Your task to perform on an android device: Add sony triple a to the cart on amazon, then select checkout. Image 0: 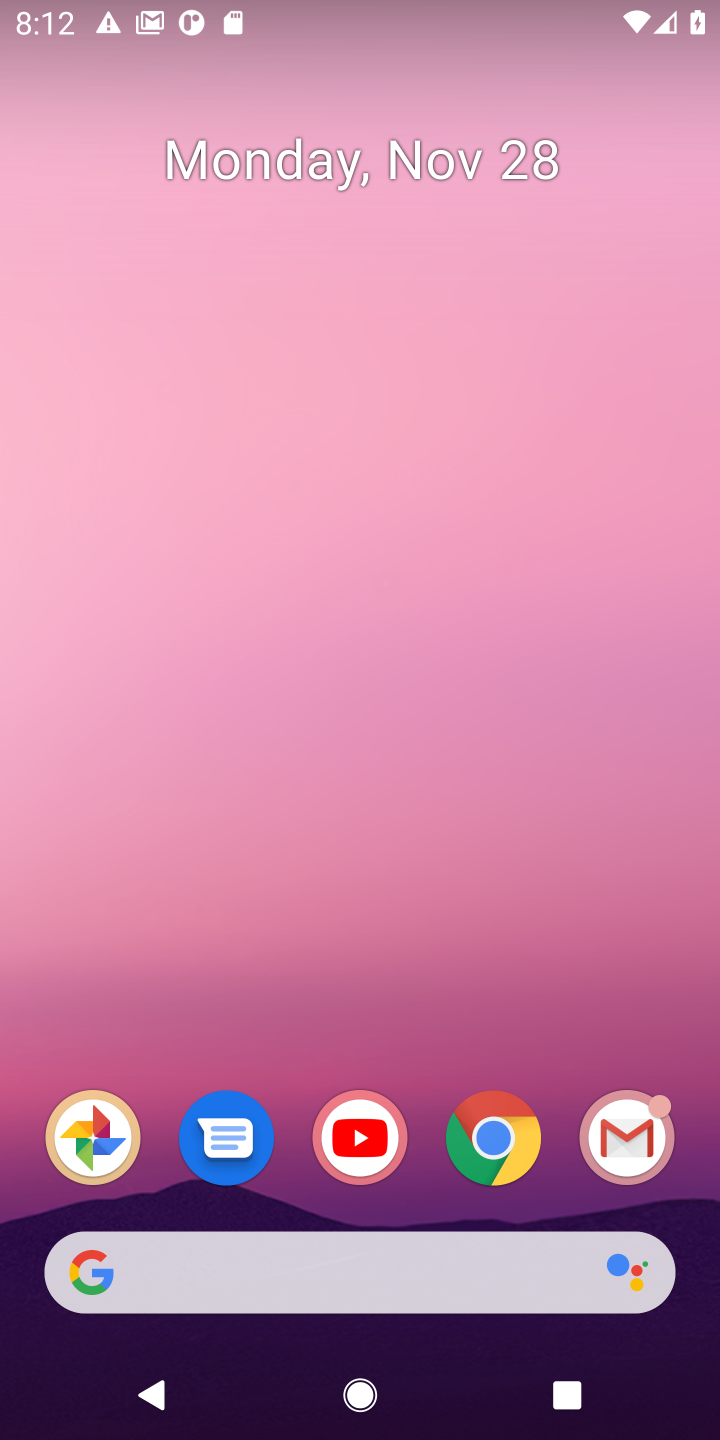
Step 0: click (487, 1142)
Your task to perform on an android device: Add sony triple a to the cart on amazon, then select checkout. Image 1: 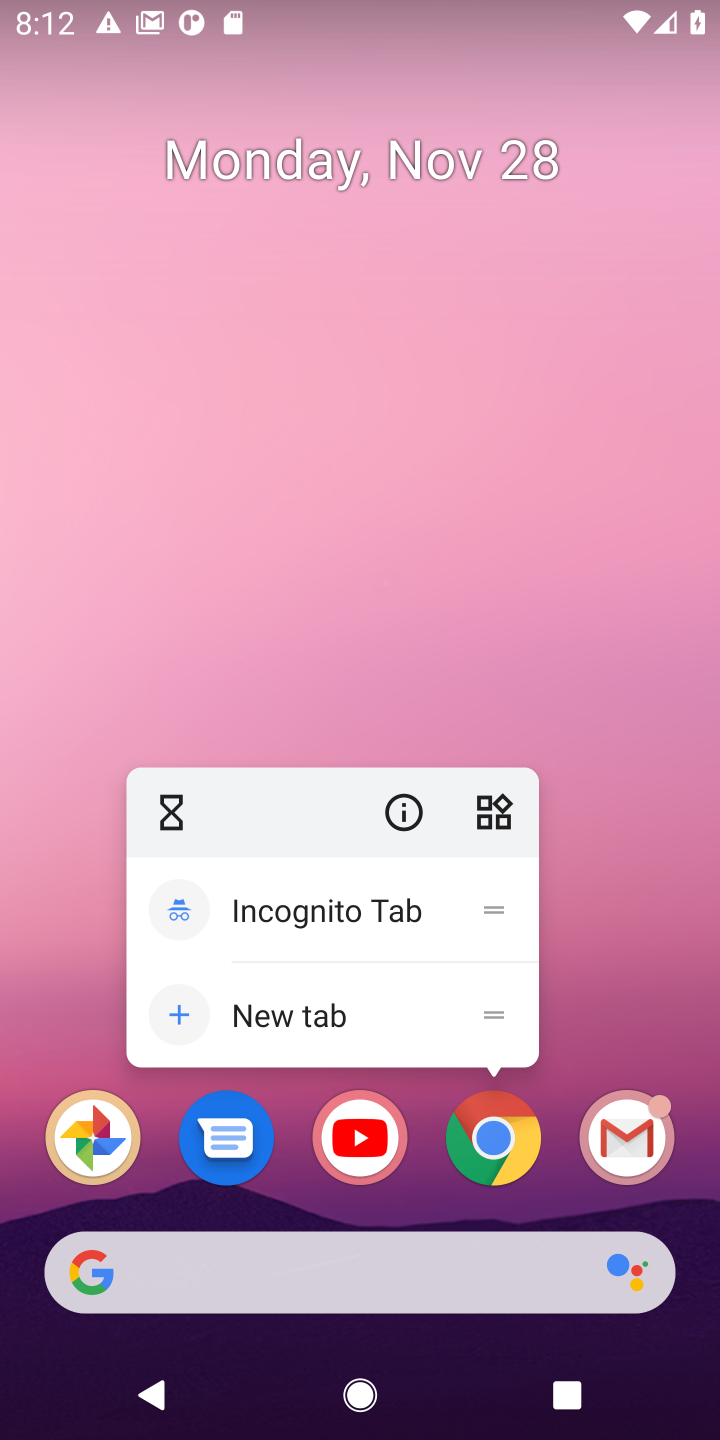
Step 1: click (494, 1138)
Your task to perform on an android device: Add sony triple a to the cart on amazon, then select checkout. Image 2: 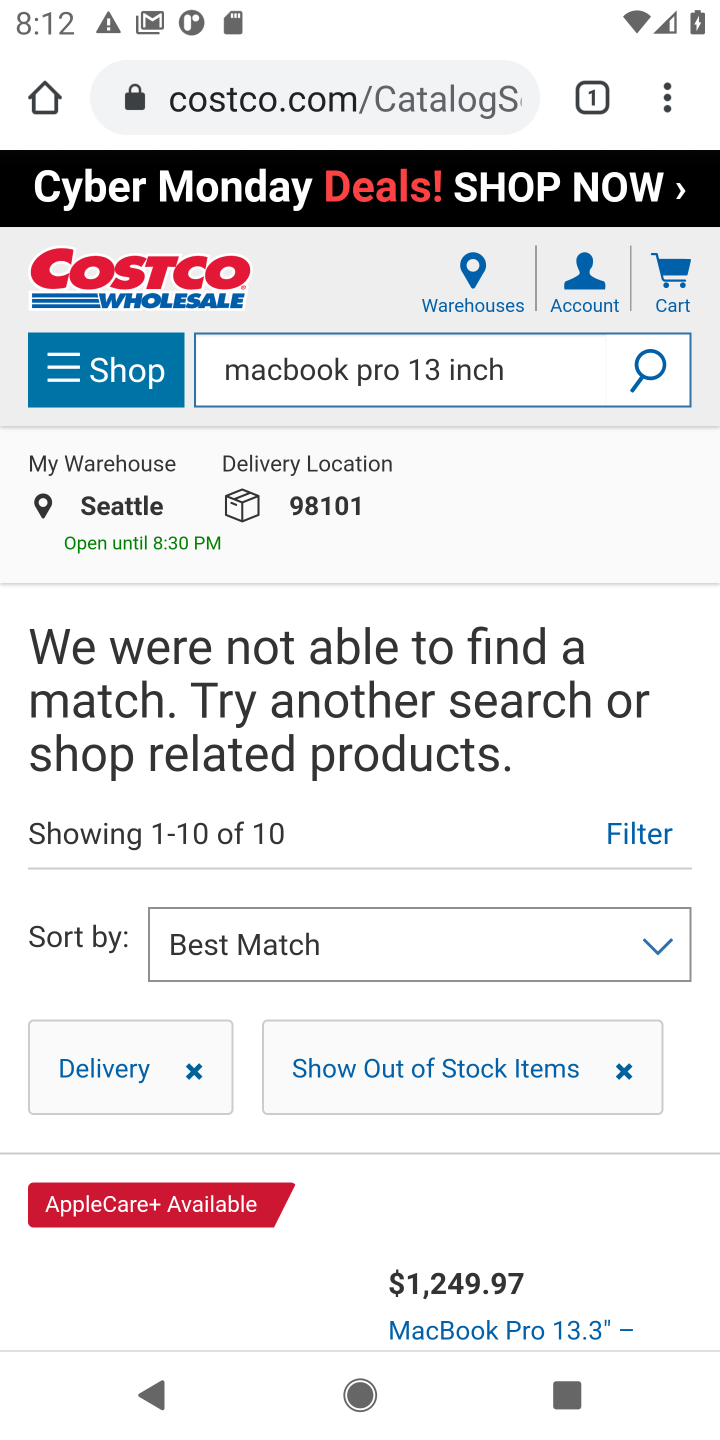
Step 2: click (259, 114)
Your task to perform on an android device: Add sony triple a to the cart on amazon, then select checkout. Image 3: 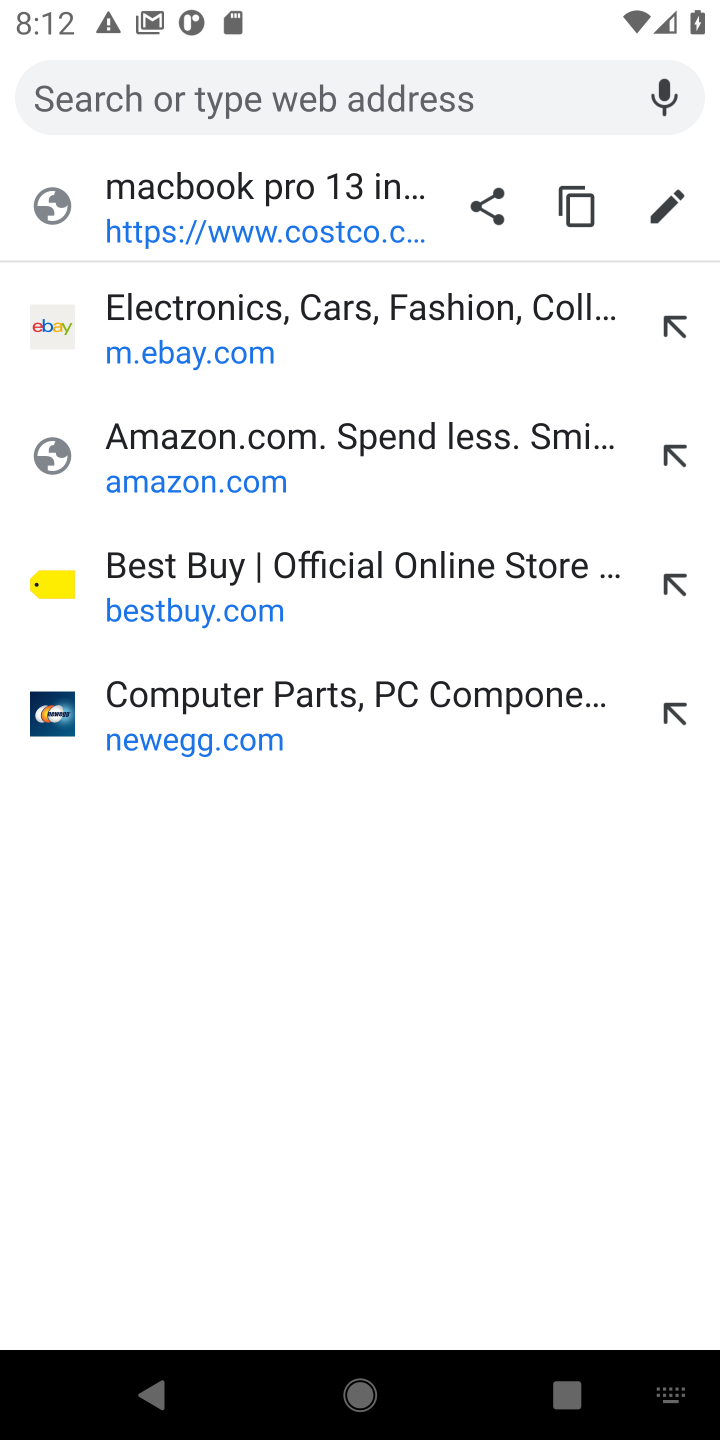
Step 3: click (142, 475)
Your task to perform on an android device: Add sony triple a to the cart on amazon, then select checkout. Image 4: 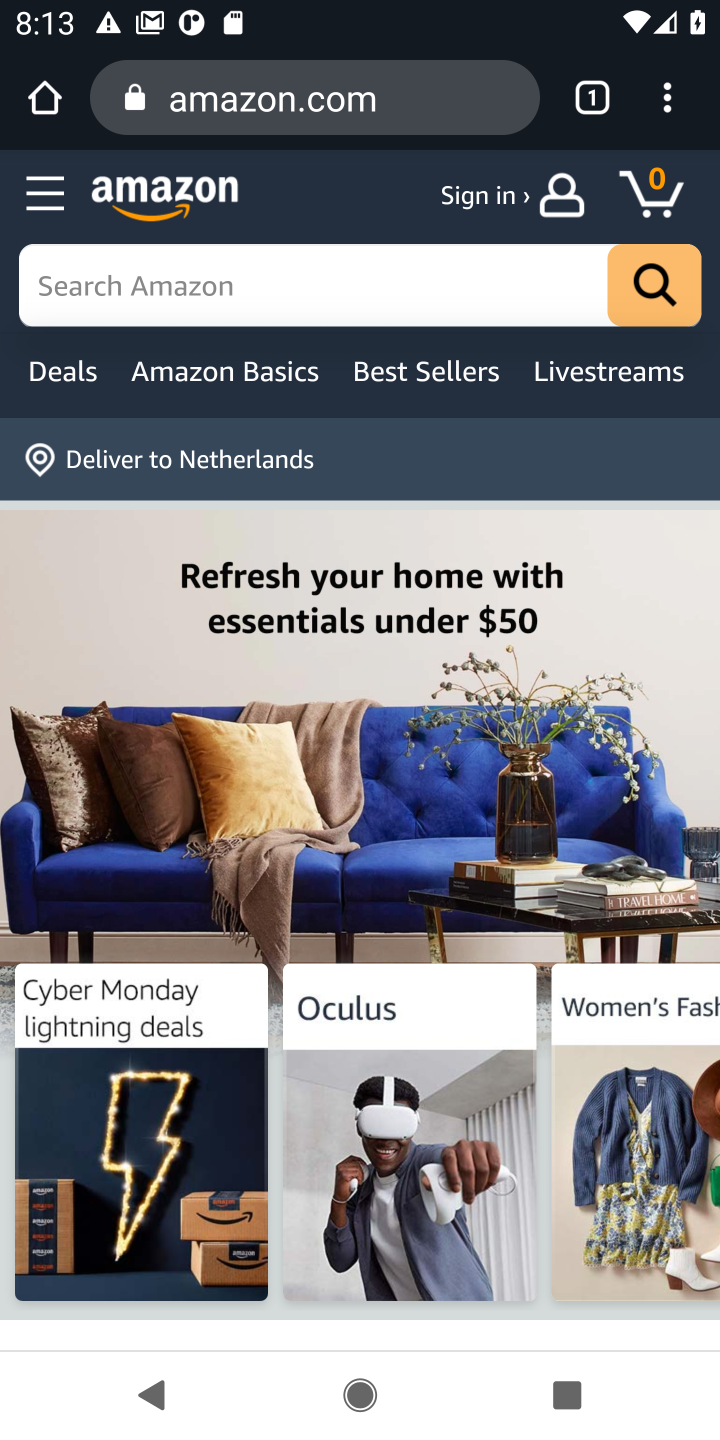
Step 4: click (123, 283)
Your task to perform on an android device: Add sony triple a to the cart on amazon, then select checkout. Image 5: 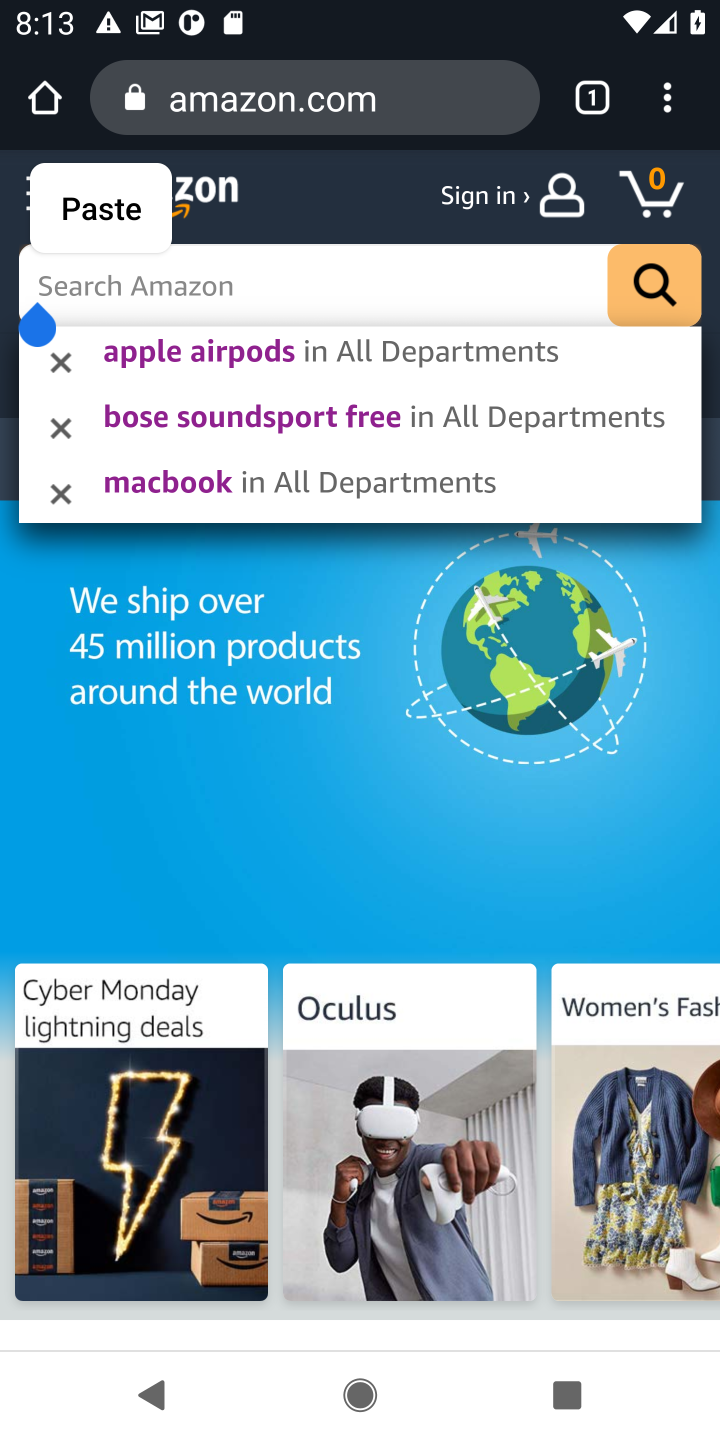
Step 5: type "sony triple a"
Your task to perform on an android device: Add sony triple a to the cart on amazon, then select checkout. Image 6: 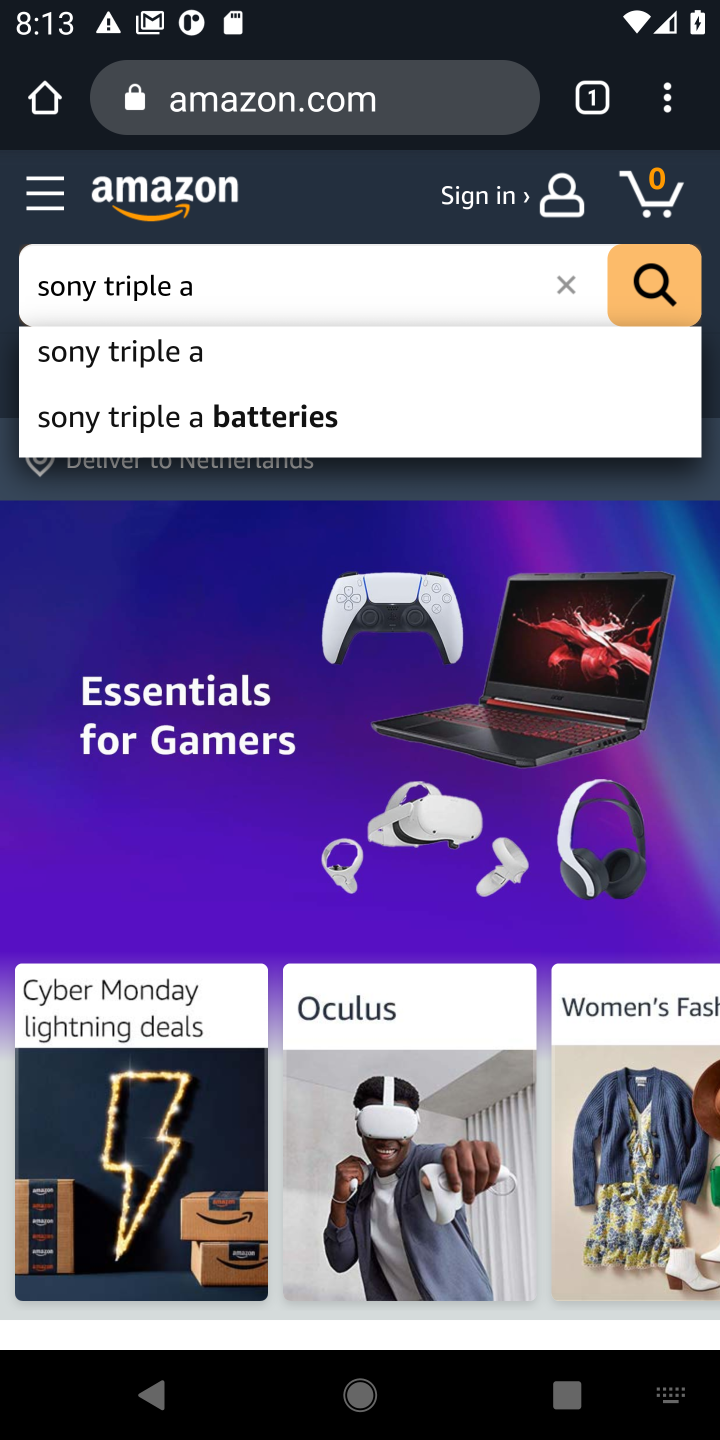
Step 6: click (114, 358)
Your task to perform on an android device: Add sony triple a to the cart on amazon, then select checkout. Image 7: 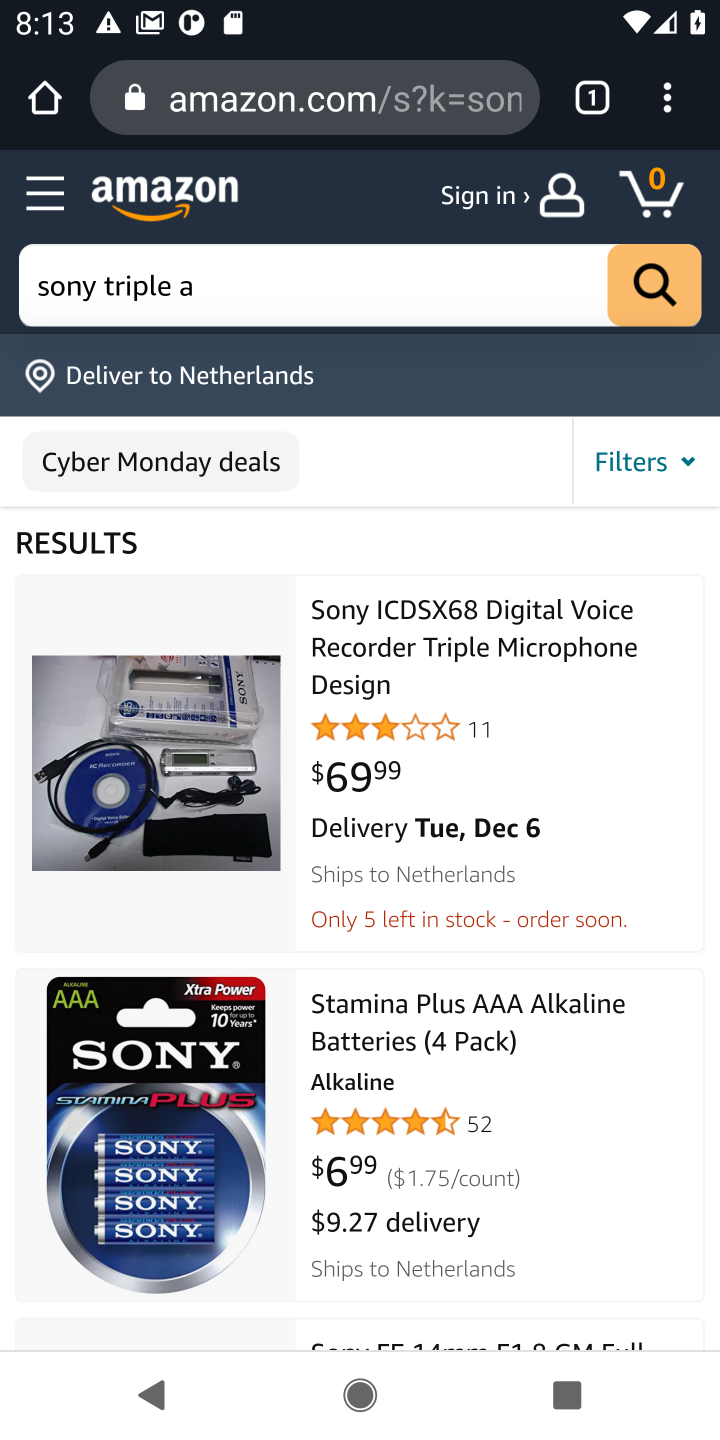
Step 7: click (369, 1044)
Your task to perform on an android device: Add sony triple a to the cart on amazon, then select checkout. Image 8: 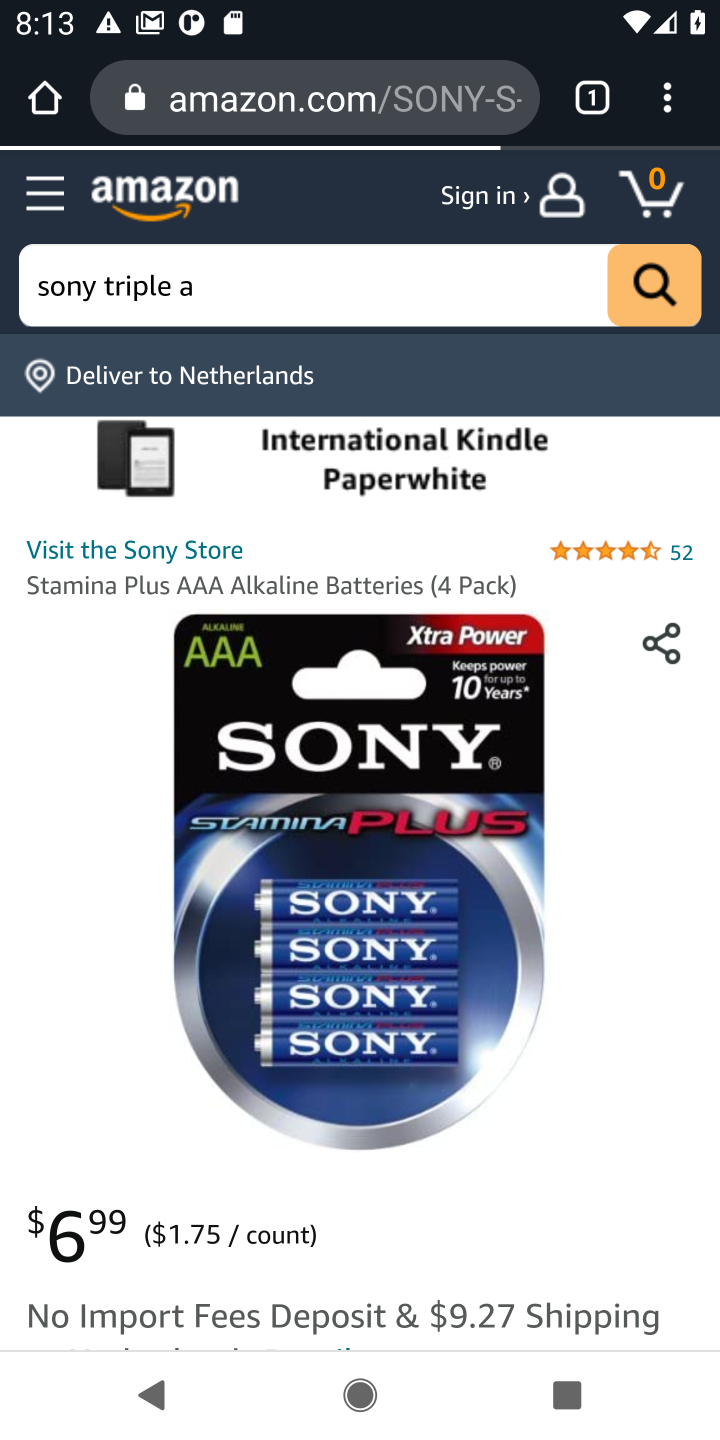
Step 8: drag from (407, 1162) to (432, 719)
Your task to perform on an android device: Add sony triple a to the cart on amazon, then select checkout. Image 9: 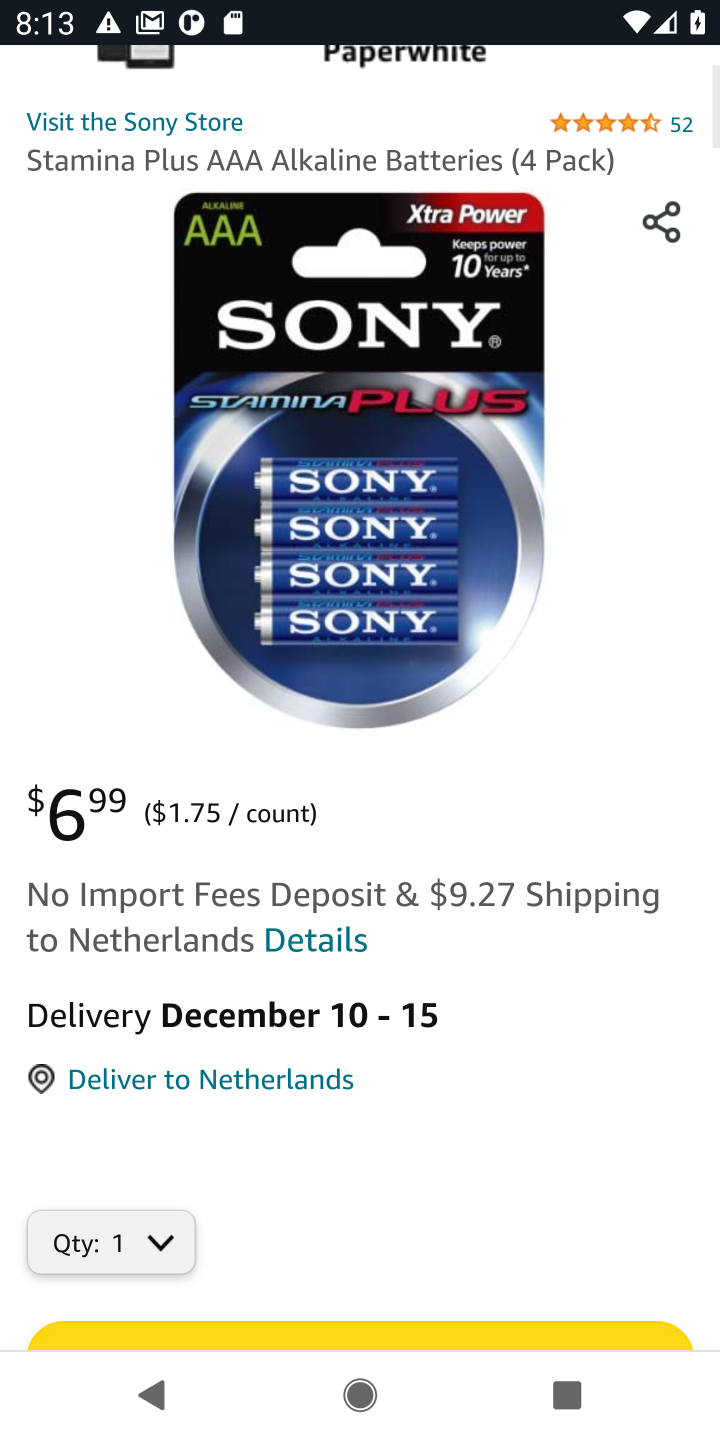
Step 9: drag from (465, 1096) to (460, 833)
Your task to perform on an android device: Add sony triple a to the cart on amazon, then select checkout. Image 10: 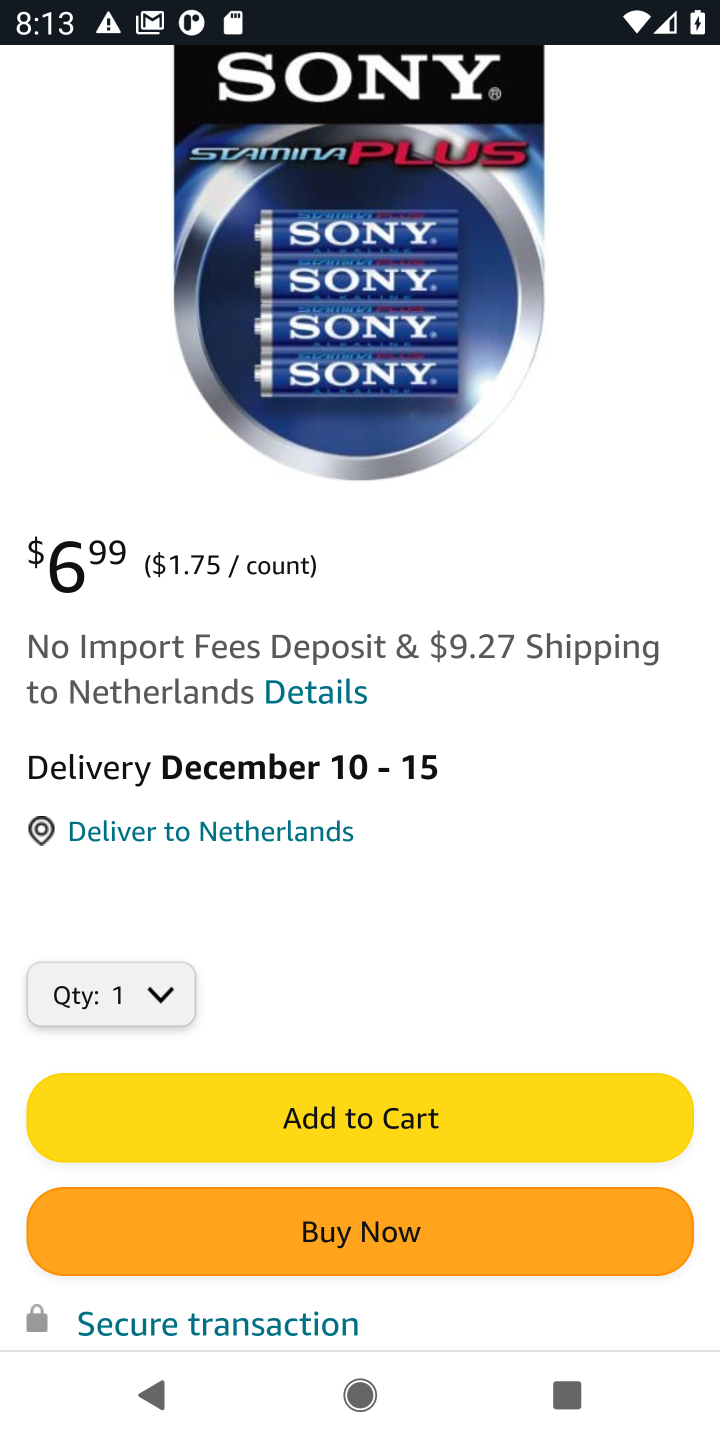
Step 10: click (352, 1102)
Your task to perform on an android device: Add sony triple a to the cart on amazon, then select checkout. Image 11: 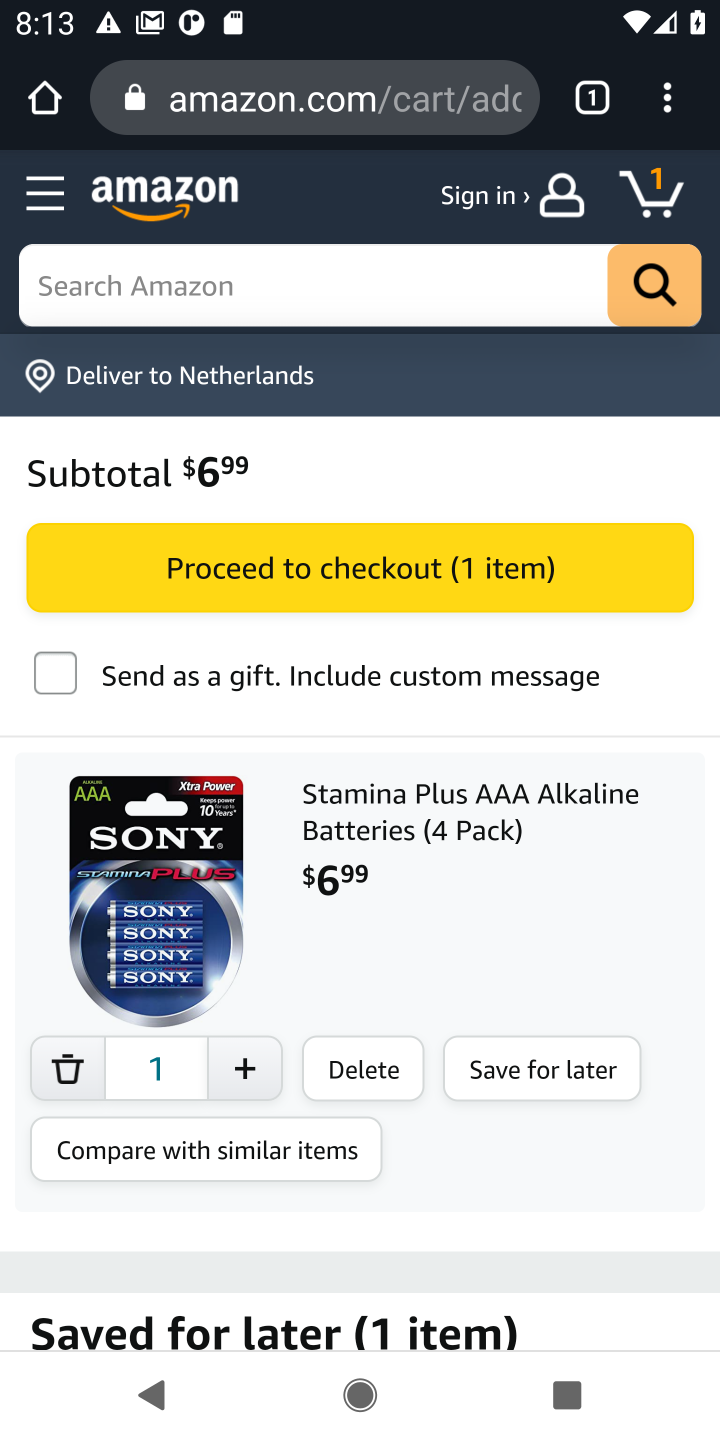
Step 11: click (327, 573)
Your task to perform on an android device: Add sony triple a to the cart on amazon, then select checkout. Image 12: 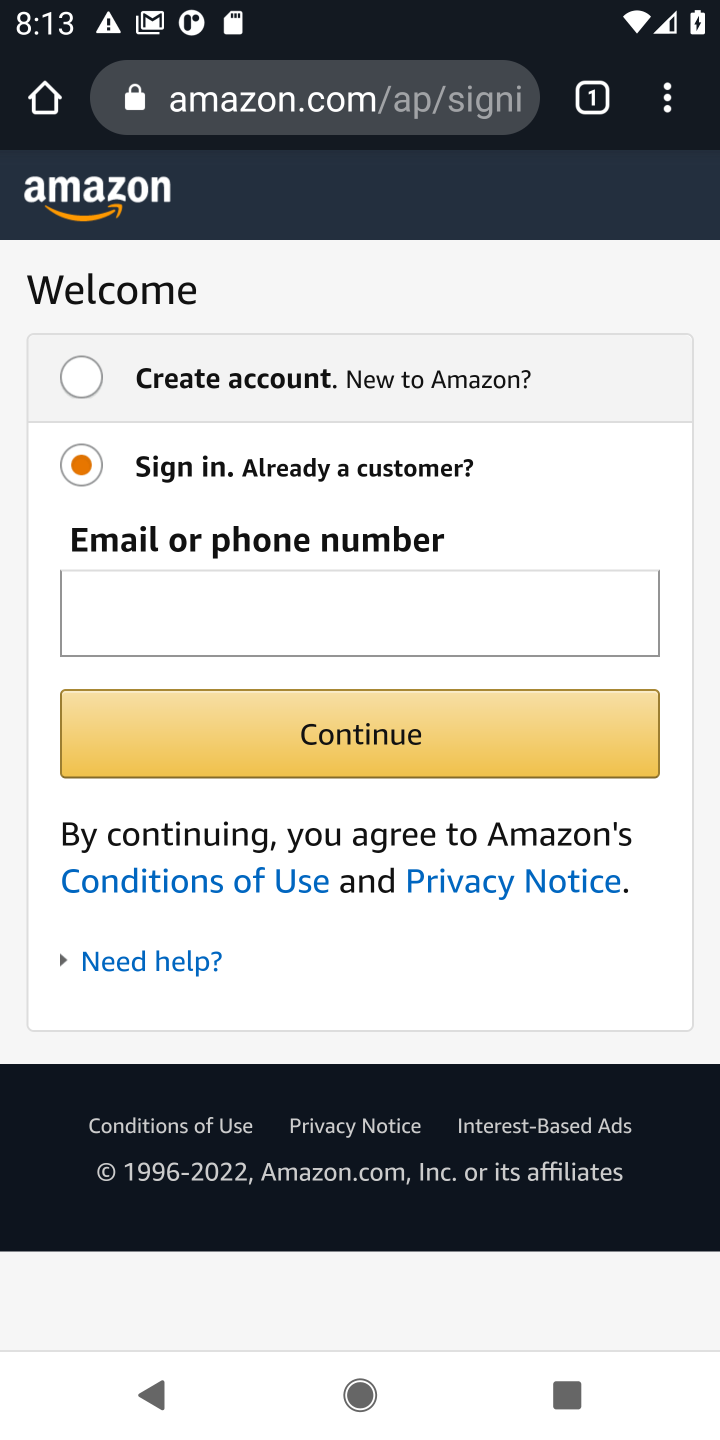
Step 12: task complete